Your task to perform on an android device: Go to CNN.com Image 0: 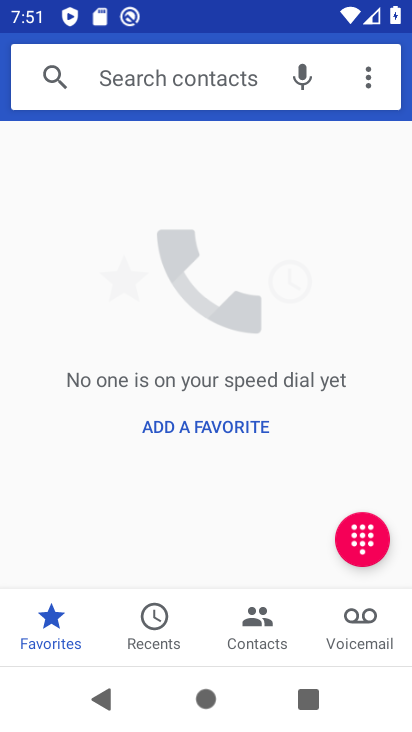
Step 0: press home button
Your task to perform on an android device: Go to CNN.com Image 1: 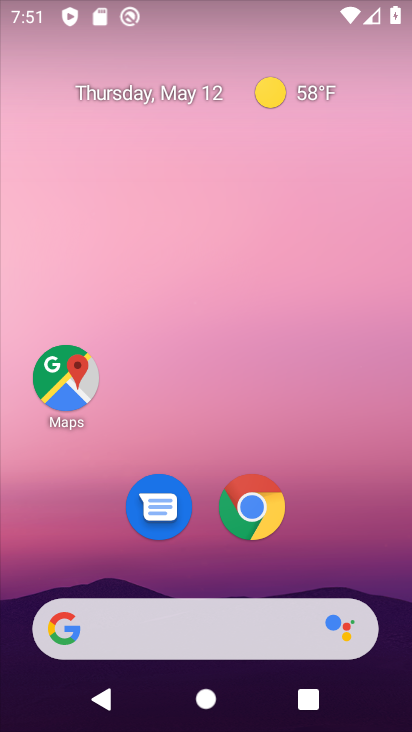
Step 1: click (268, 521)
Your task to perform on an android device: Go to CNN.com Image 2: 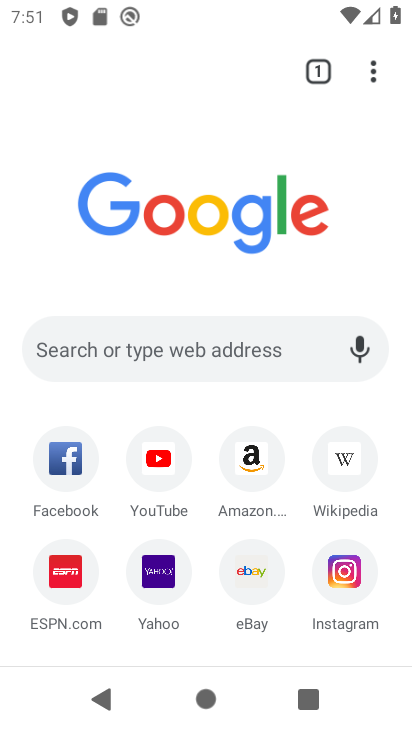
Step 2: click (242, 356)
Your task to perform on an android device: Go to CNN.com Image 3: 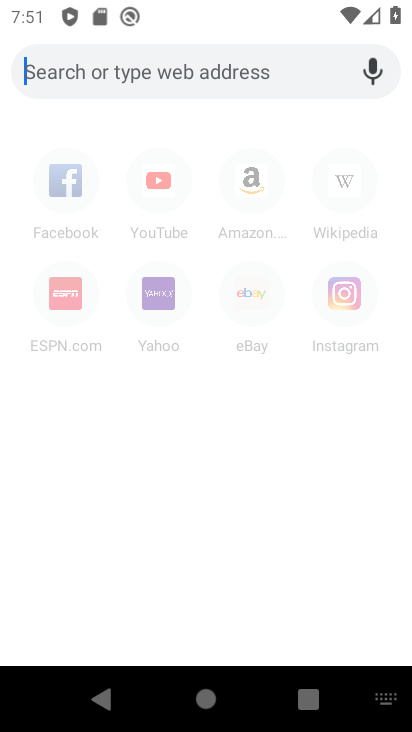
Step 3: type "CNN.com"
Your task to perform on an android device: Go to CNN.com Image 4: 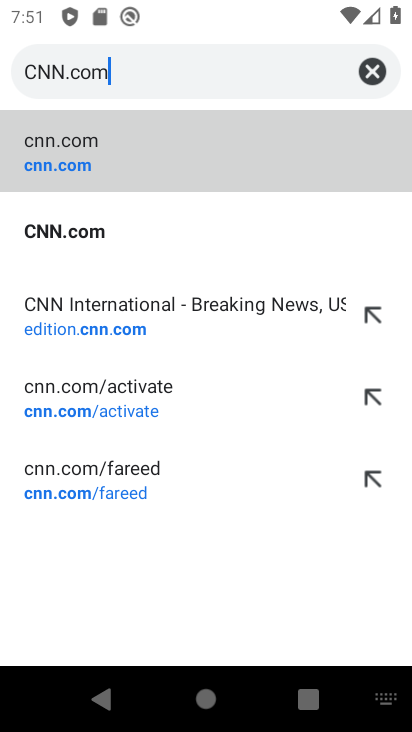
Step 4: click (110, 170)
Your task to perform on an android device: Go to CNN.com Image 5: 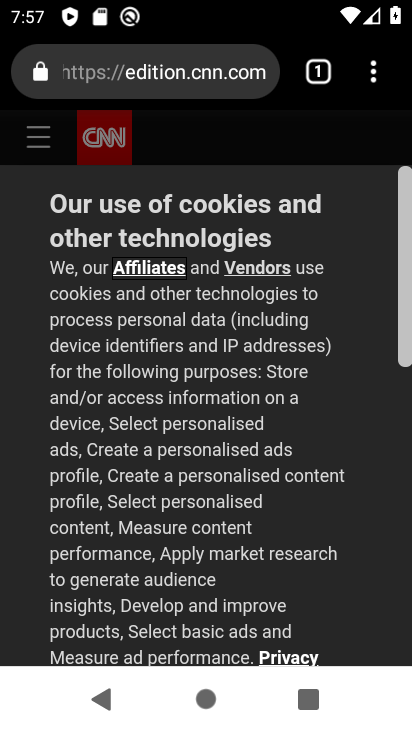
Step 5: task complete